Your task to perform on an android device: change the clock display to show seconds Image 0: 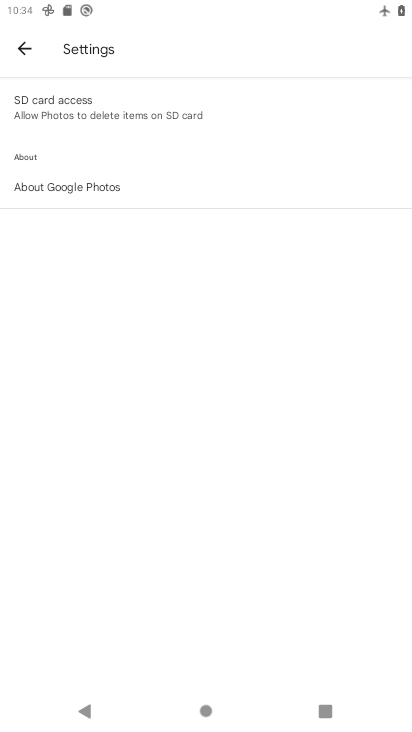
Step 0: press back button
Your task to perform on an android device: change the clock display to show seconds Image 1: 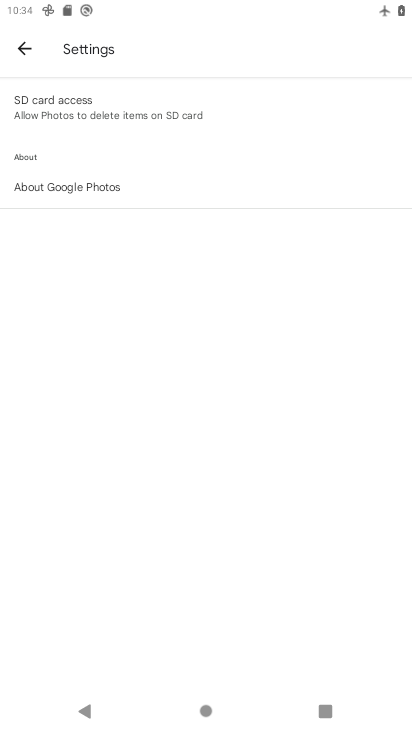
Step 1: press back button
Your task to perform on an android device: change the clock display to show seconds Image 2: 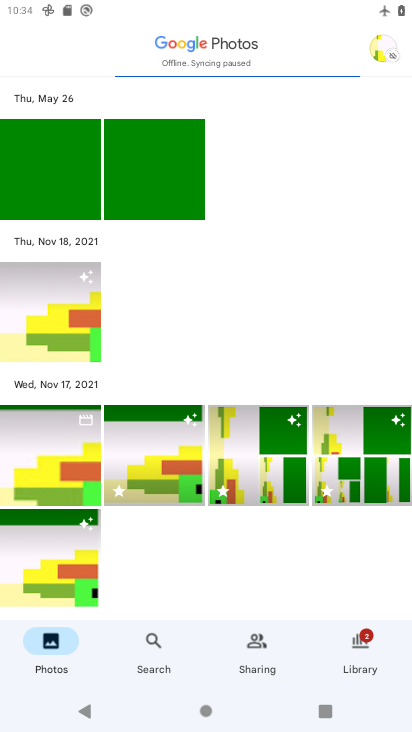
Step 2: press back button
Your task to perform on an android device: change the clock display to show seconds Image 3: 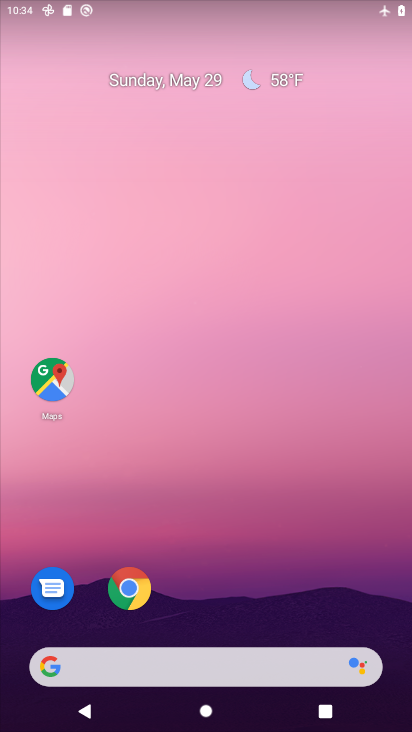
Step 3: drag from (388, 573) to (208, 14)
Your task to perform on an android device: change the clock display to show seconds Image 4: 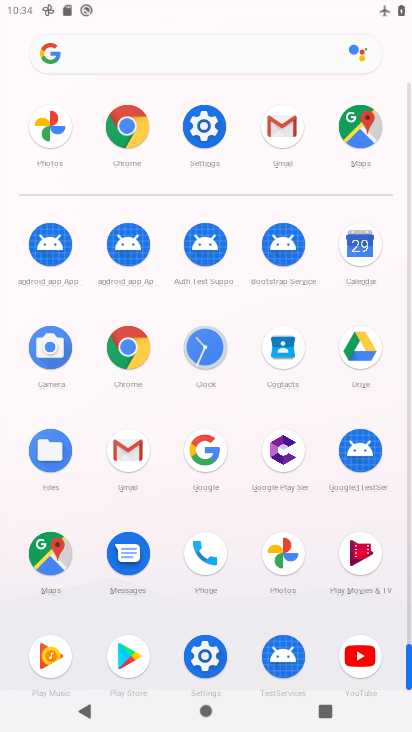
Step 4: click (204, 123)
Your task to perform on an android device: change the clock display to show seconds Image 5: 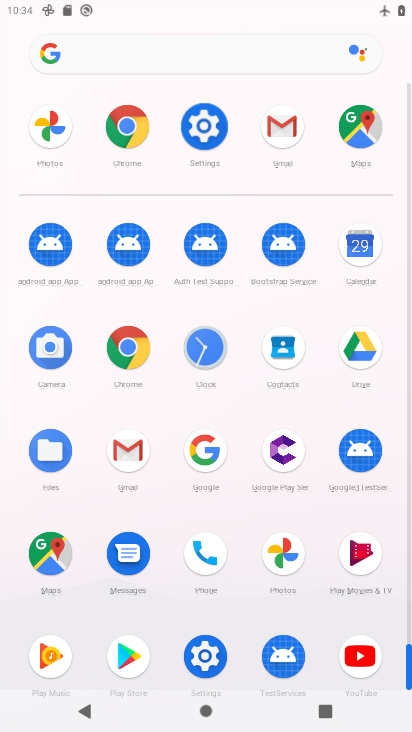
Step 5: click (205, 125)
Your task to perform on an android device: change the clock display to show seconds Image 6: 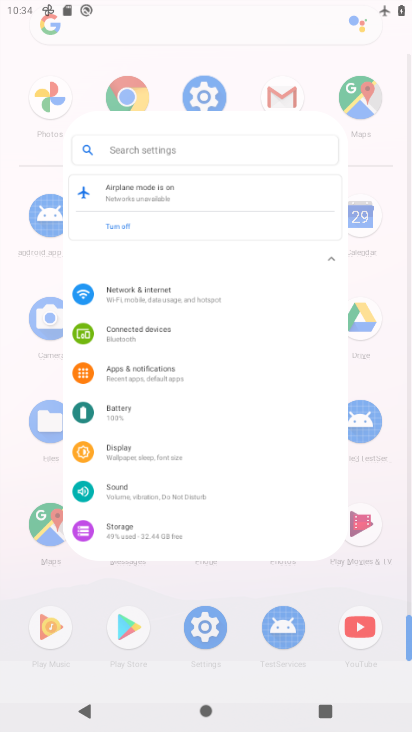
Step 6: click (205, 125)
Your task to perform on an android device: change the clock display to show seconds Image 7: 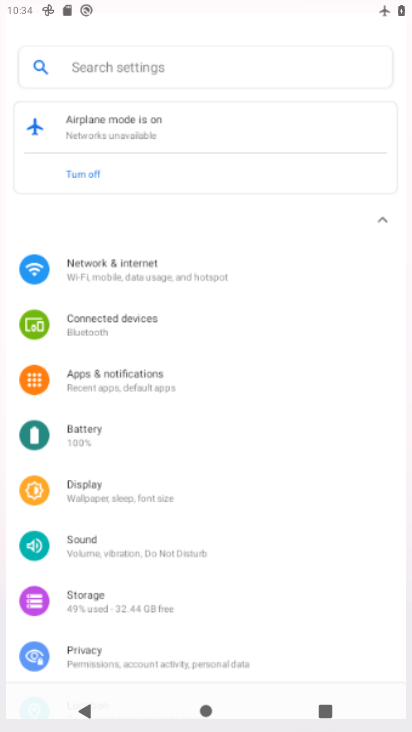
Step 7: click (206, 126)
Your task to perform on an android device: change the clock display to show seconds Image 8: 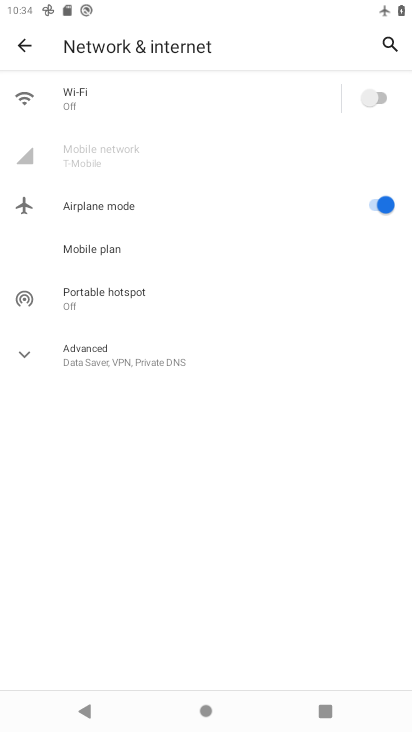
Step 8: click (376, 98)
Your task to perform on an android device: change the clock display to show seconds Image 9: 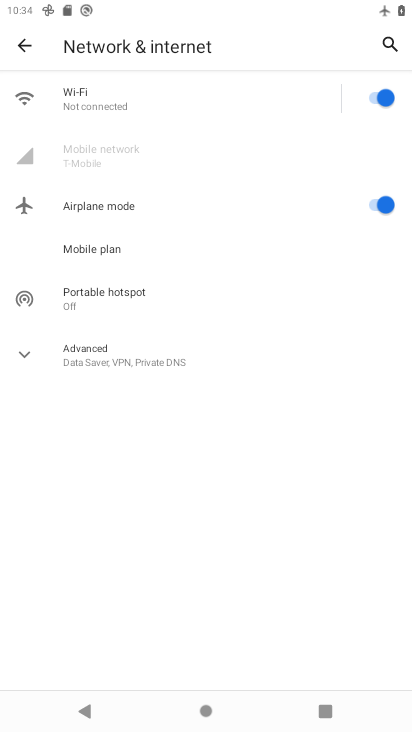
Step 9: click (390, 205)
Your task to perform on an android device: change the clock display to show seconds Image 10: 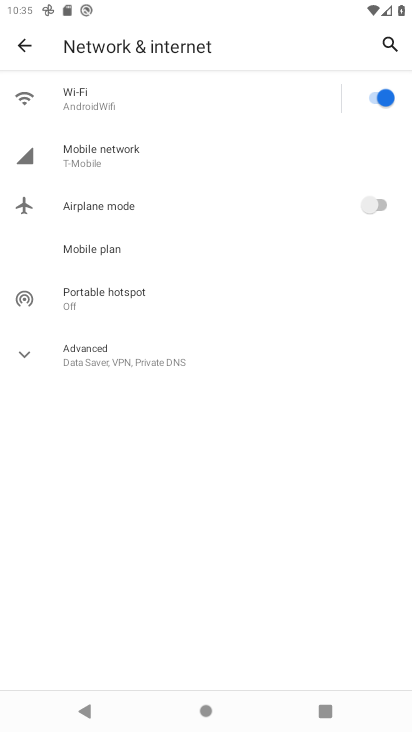
Step 10: click (22, 47)
Your task to perform on an android device: change the clock display to show seconds Image 11: 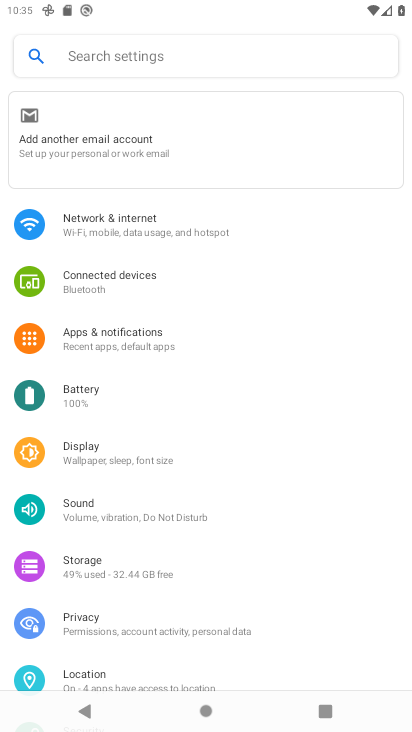
Step 11: press home button
Your task to perform on an android device: change the clock display to show seconds Image 12: 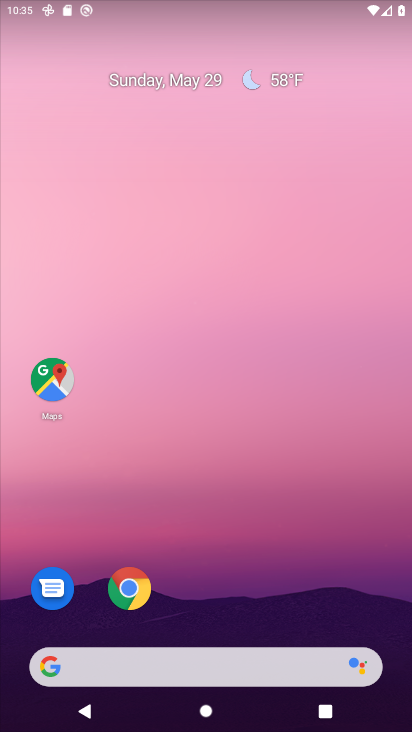
Step 12: drag from (276, 706) to (182, 195)
Your task to perform on an android device: change the clock display to show seconds Image 13: 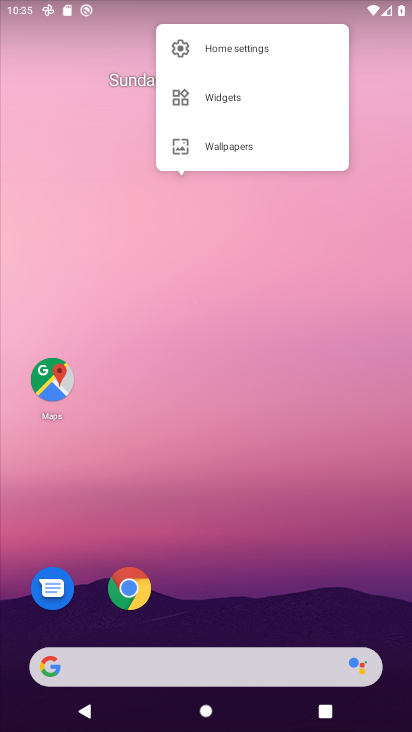
Step 13: drag from (321, 655) to (266, 461)
Your task to perform on an android device: change the clock display to show seconds Image 14: 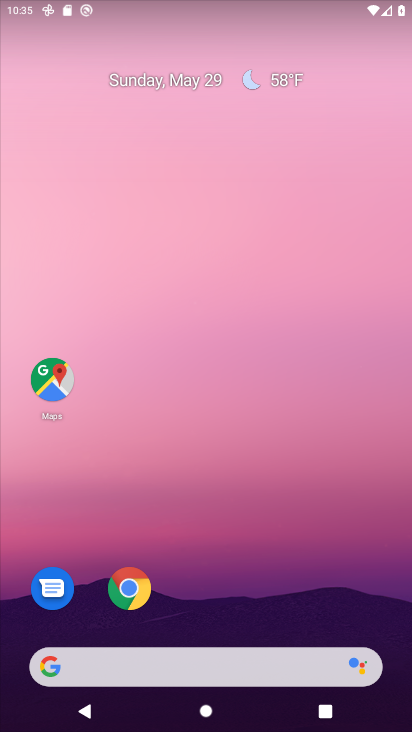
Step 14: drag from (280, 629) to (118, 6)
Your task to perform on an android device: change the clock display to show seconds Image 15: 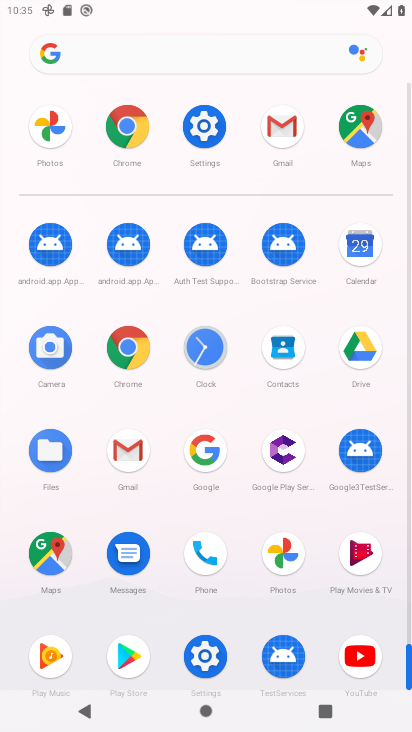
Step 15: drag from (238, 463) to (147, 61)
Your task to perform on an android device: change the clock display to show seconds Image 16: 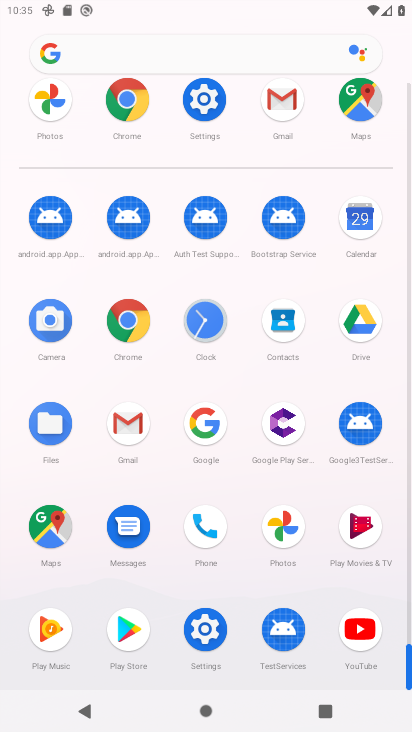
Step 16: click (181, 322)
Your task to perform on an android device: change the clock display to show seconds Image 17: 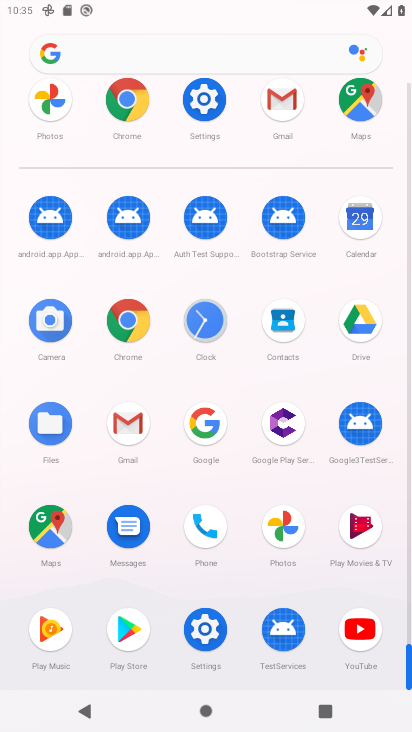
Step 17: click (186, 319)
Your task to perform on an android device: change the clock display to show seconds Image 18: 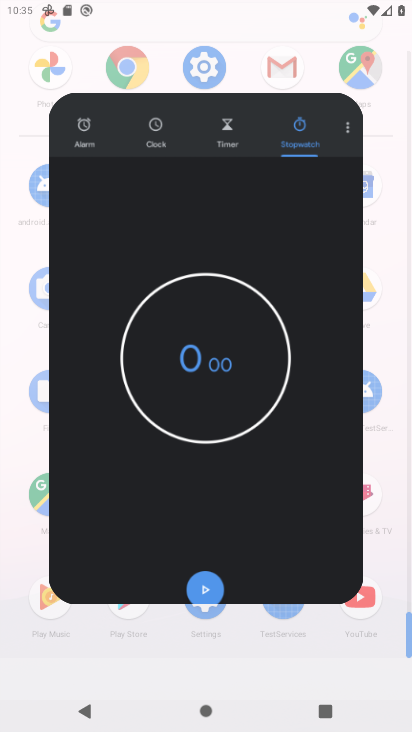
Step 18: click (188, 317)
Your task to perform on an android device: change the clock display to show seconds Image 19: 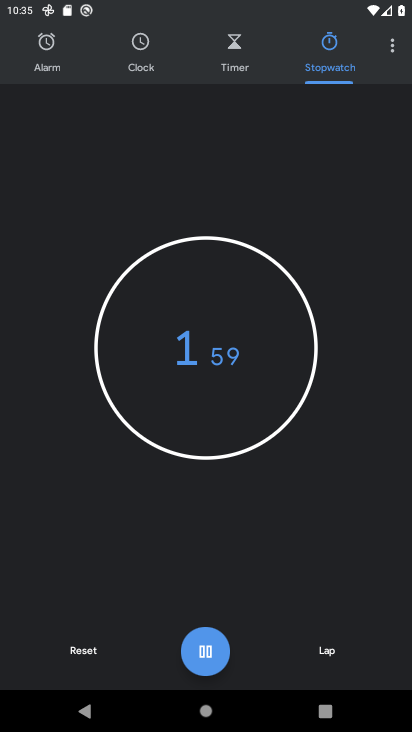
Step 19: click (387, 42)
Your task to perform on an android device: change the clock display to show seconds Image 20: 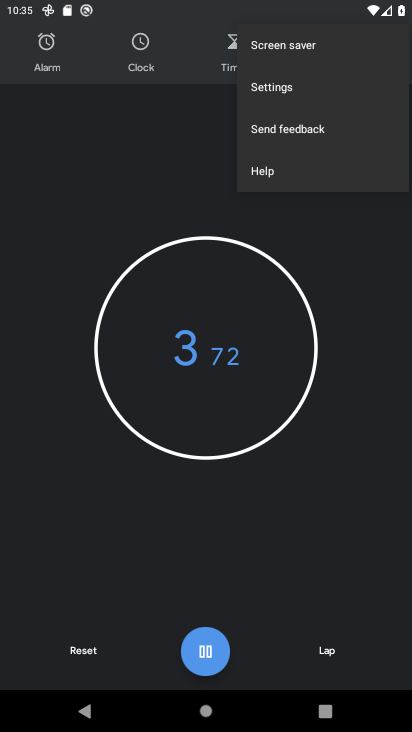
Step 20: click (303, 89)
Your task to perform on an android device: change the clock display to show seconds Image 21: 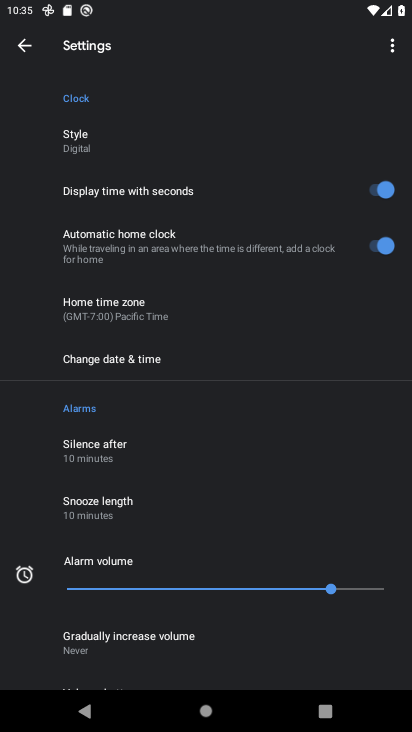
Step 21: task complete